Your task to perform on an android device: turn off notifications settings in the gmail app Image 0: 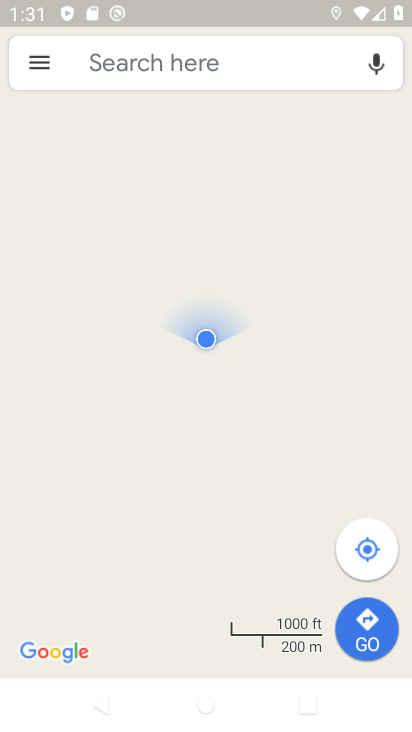
Step 0: press home button
Your task to perform on an android device: turn off notifications settings in the gmail app Image 1: 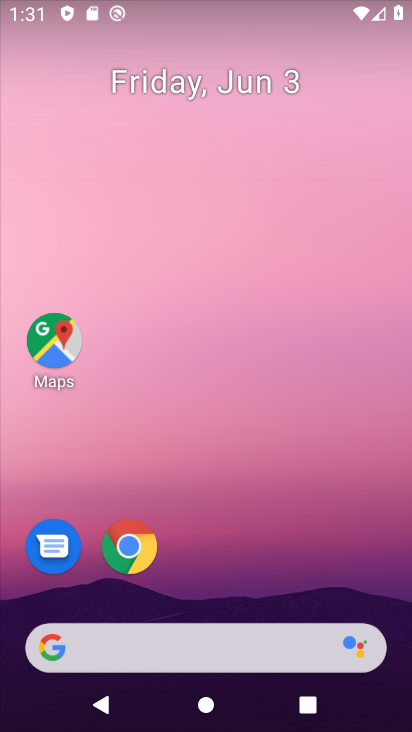
Step 1: drag from (231, 596) to (336, 127)
Your task to perform on an android device: turn off notifications settings in the gmail app Image 2: 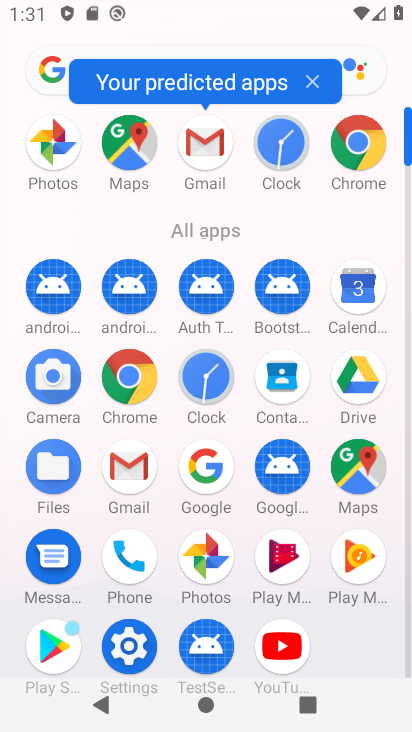
Step 2: click (143, 479)
Your task to perform on an android device: turn off notifications settings in the gmail app Image 3: 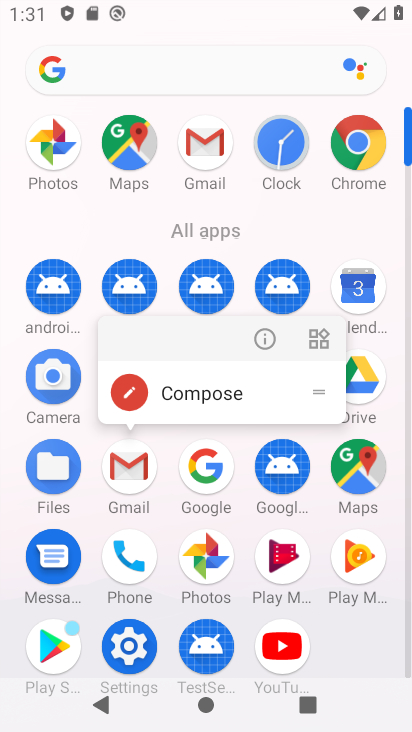
Step 3: click (138, 473)
Your task to perform on an android device: turn off notifications settings in the gmail app Image 4: 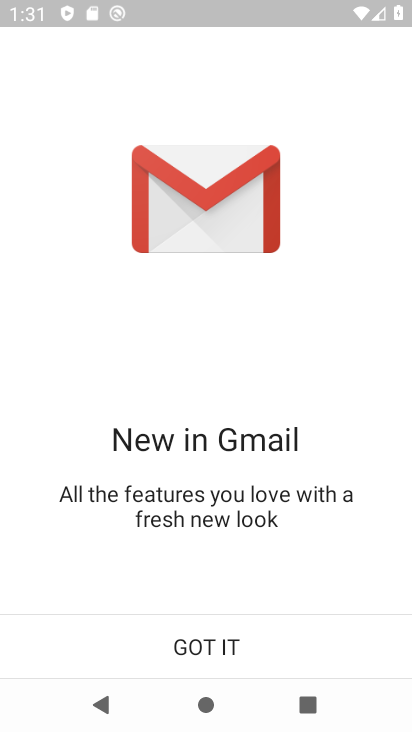
Step 4: click (213, 641)
Your task to perform on an android device: turn off notifications settings in the gmail app Image 5: 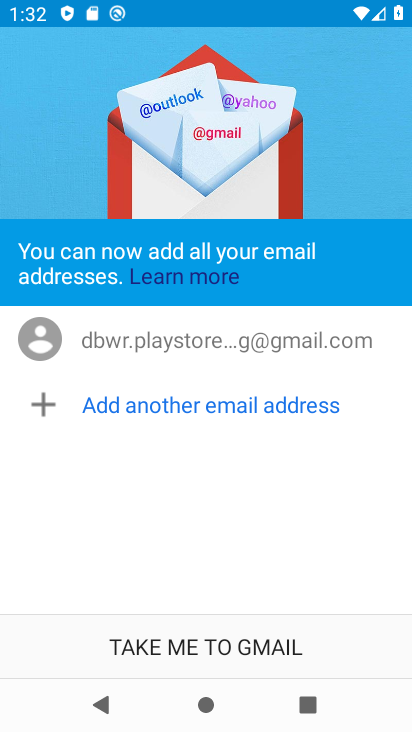
Step 5: click (215, 648)
Your task to perform on an android device: turn off notifications settings in the gmail app Image 6: 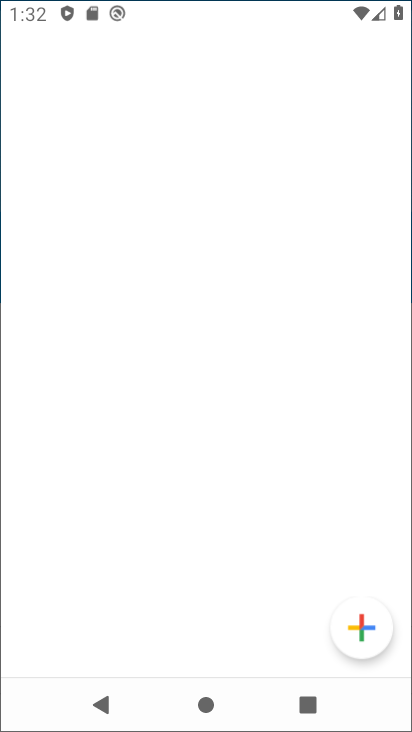
Step 6: click (223, 648)
Your task to perform on an android device: turn off notifications settings in the gmail app Image 7: 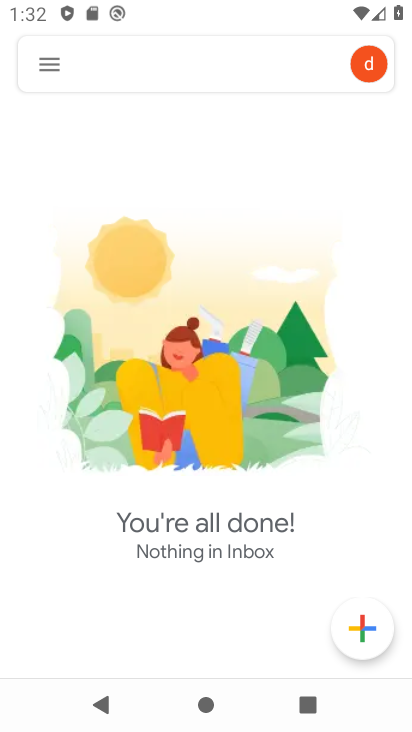
Step 7: click (72, 67)
Your task to perform on an android device: turn off notifications settings in the gmail app Image 8: 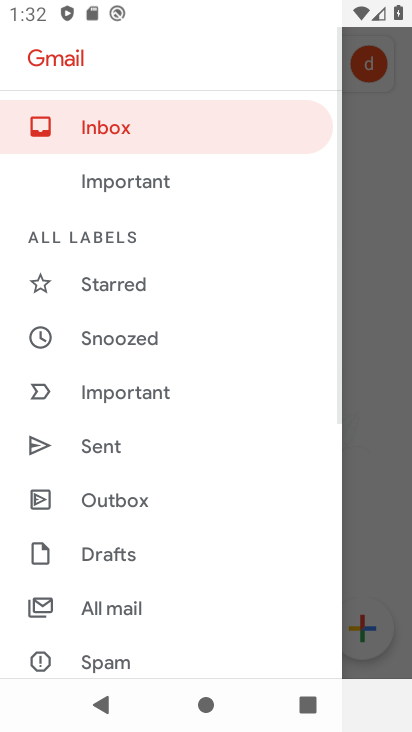
Step 8: drag from (203, 345) to (271, 102)
Your task to perform on an android device: turn off notifications settings in the gmail app Image 9: 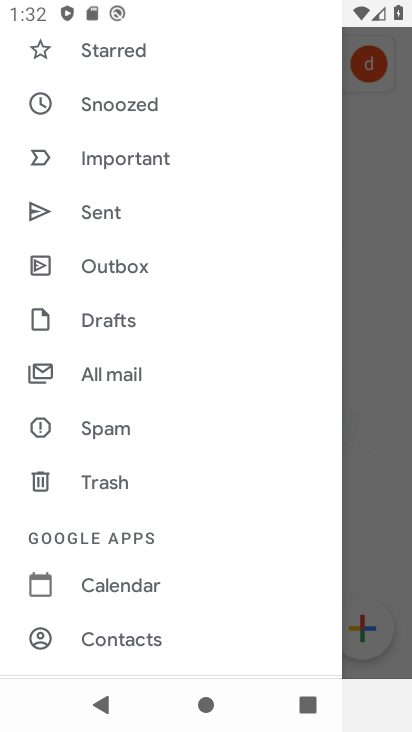
Step 9: drag from (168, 550) to (302, 127)
Your task to perform on an android device: turn off notifications settings in the gmail app Image 10: 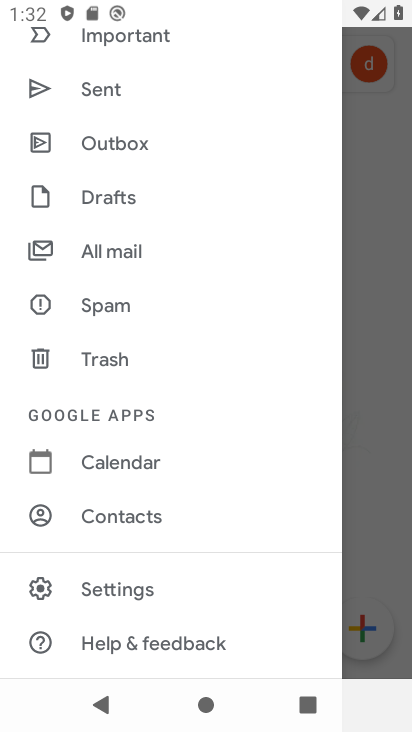
Step 10: click (149, 598)
Your task to perform on an android device: turn off notifications settings in the gmail app Image 11: 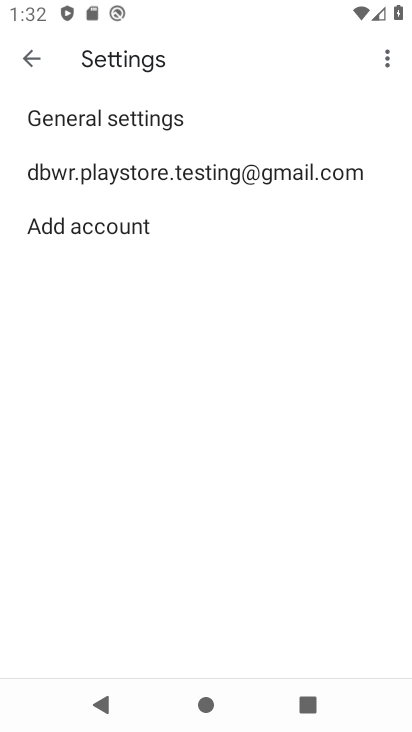
Step 11: click (256, 192)
Your task to perform on an android device: turn off notifications settings in the gmail app Image 12: 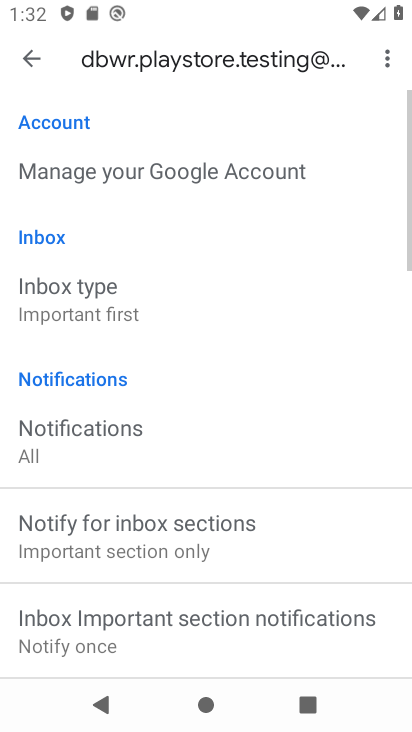
Step 12: drag from (261, 304) to (335, 179)
Your task to perform on an android device: turn off notifications settings in the gmail app Image 13: 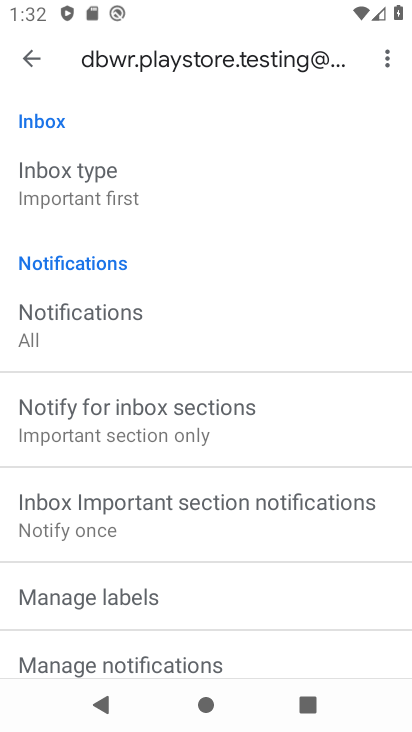
Step 13: drag from (152, 630) to (230, 345)
Your task to perform on an android device: turn off notifications settings in the gmail app Image 14: 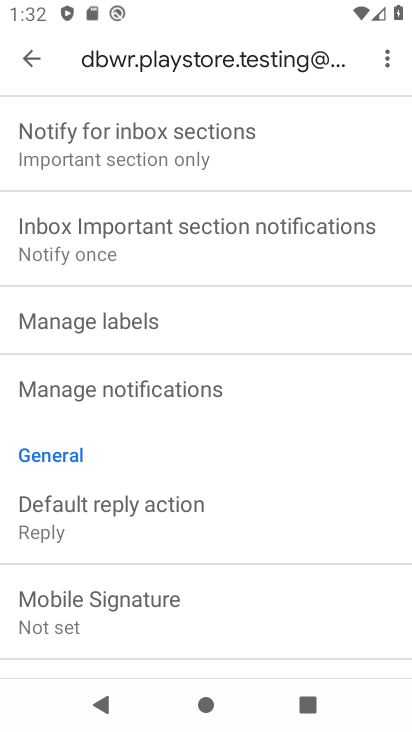
Step 14: click (199, 394)
Your task to perform on an android device: turn off notifications settings in the gmail app Image 15: 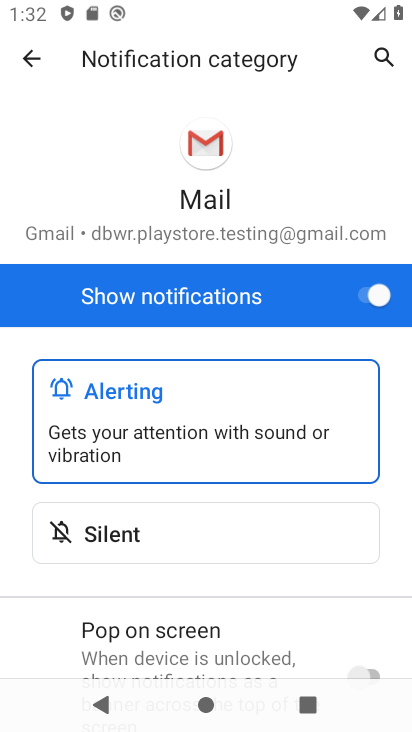
Step 15: click (361, 298)
Your task to perform on an android device: turn off notifications settings in the gmail app Image 16: 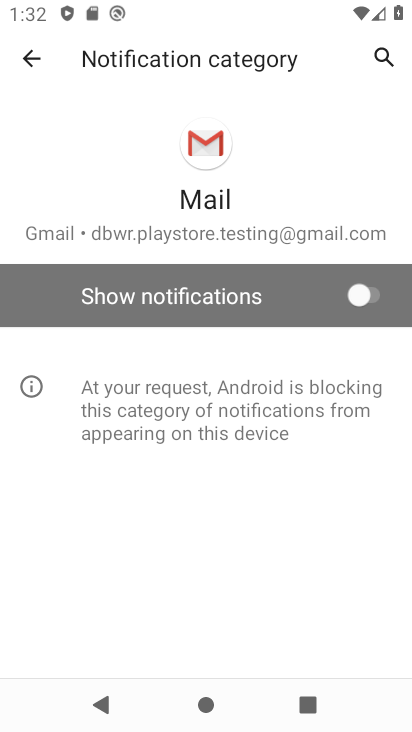
Step 16: task complete